Your task to perform on an android device: Turn off the flashlight Image 0: 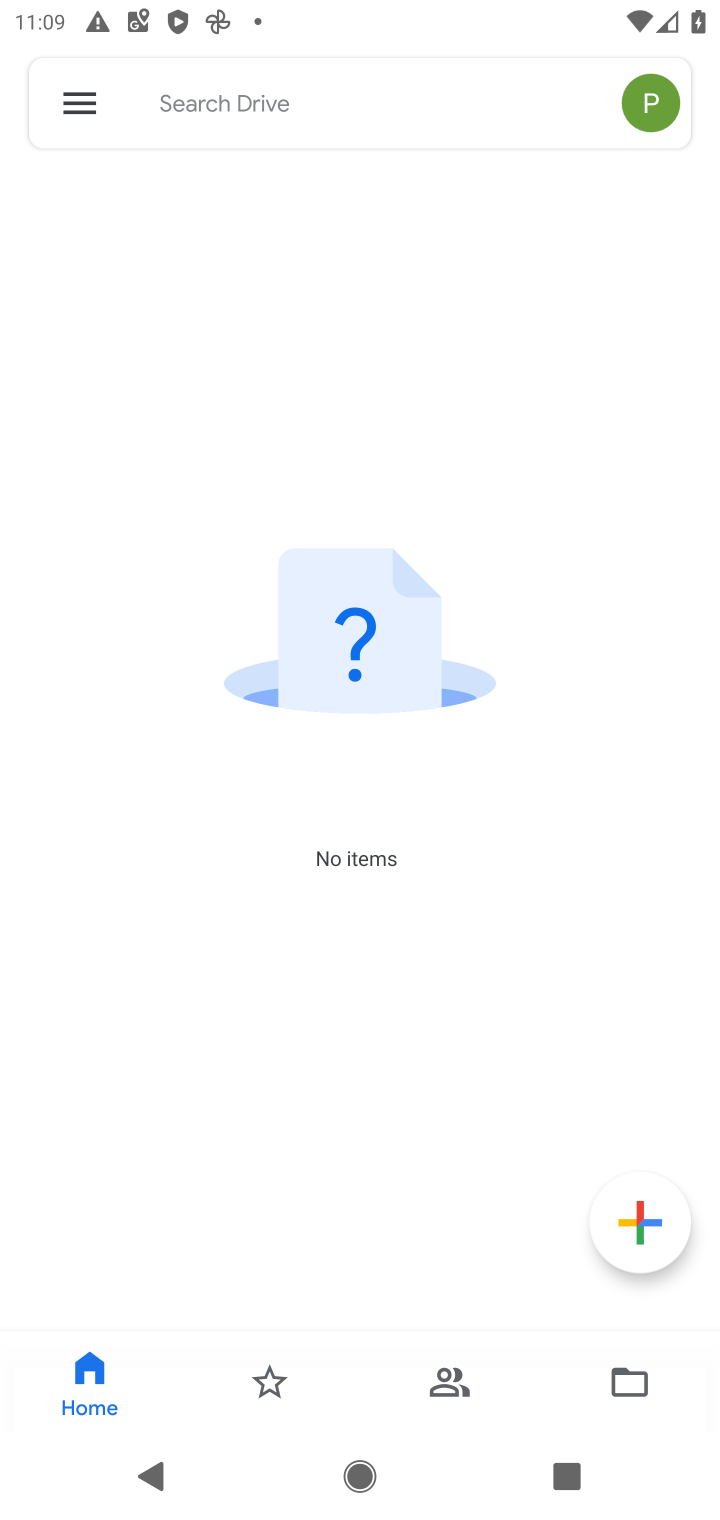
Step 0: press home button
Your task to perform on an android device: Turn off the flashlight Image 1: 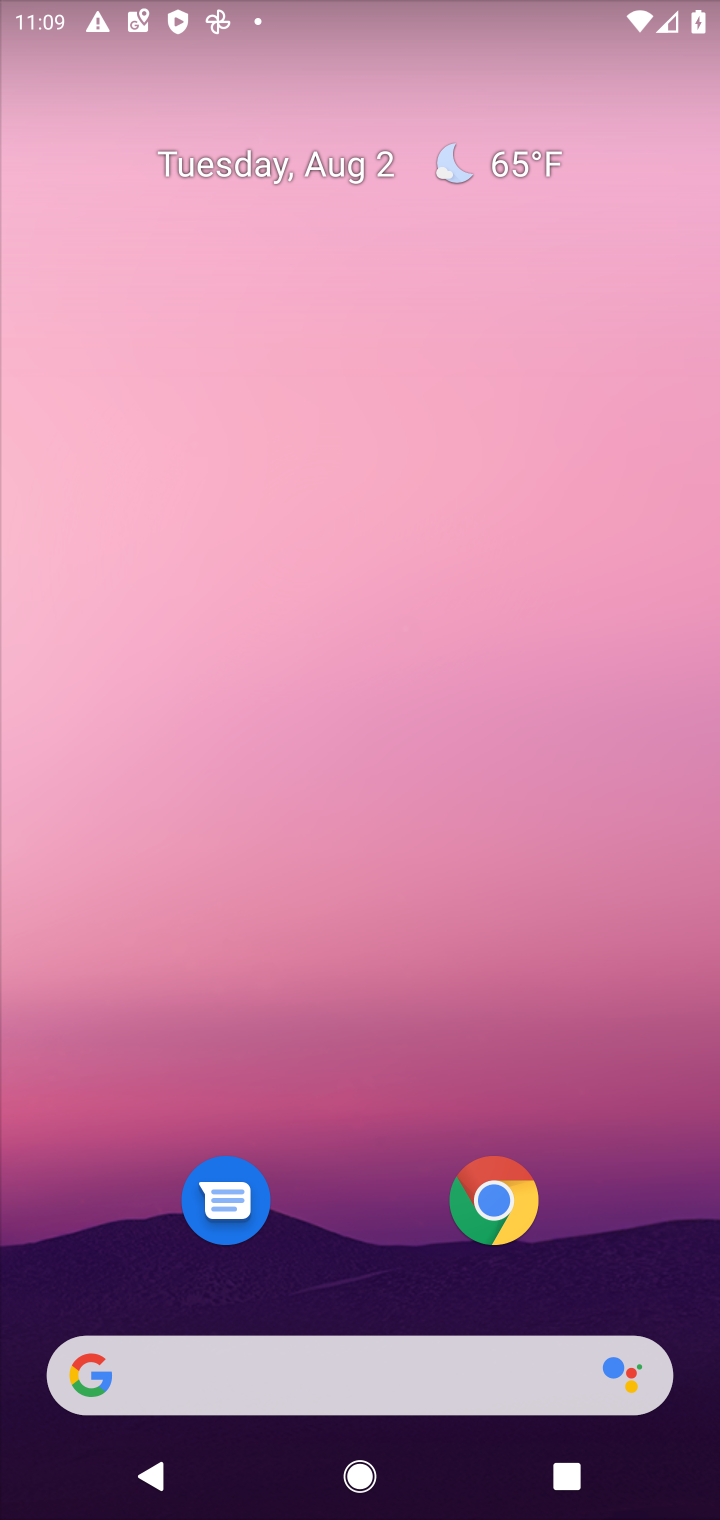
Step 1: drag from (421, 26) to (498, 945)
Your task to perform on an android device: Turn off the flashlight Image 2: 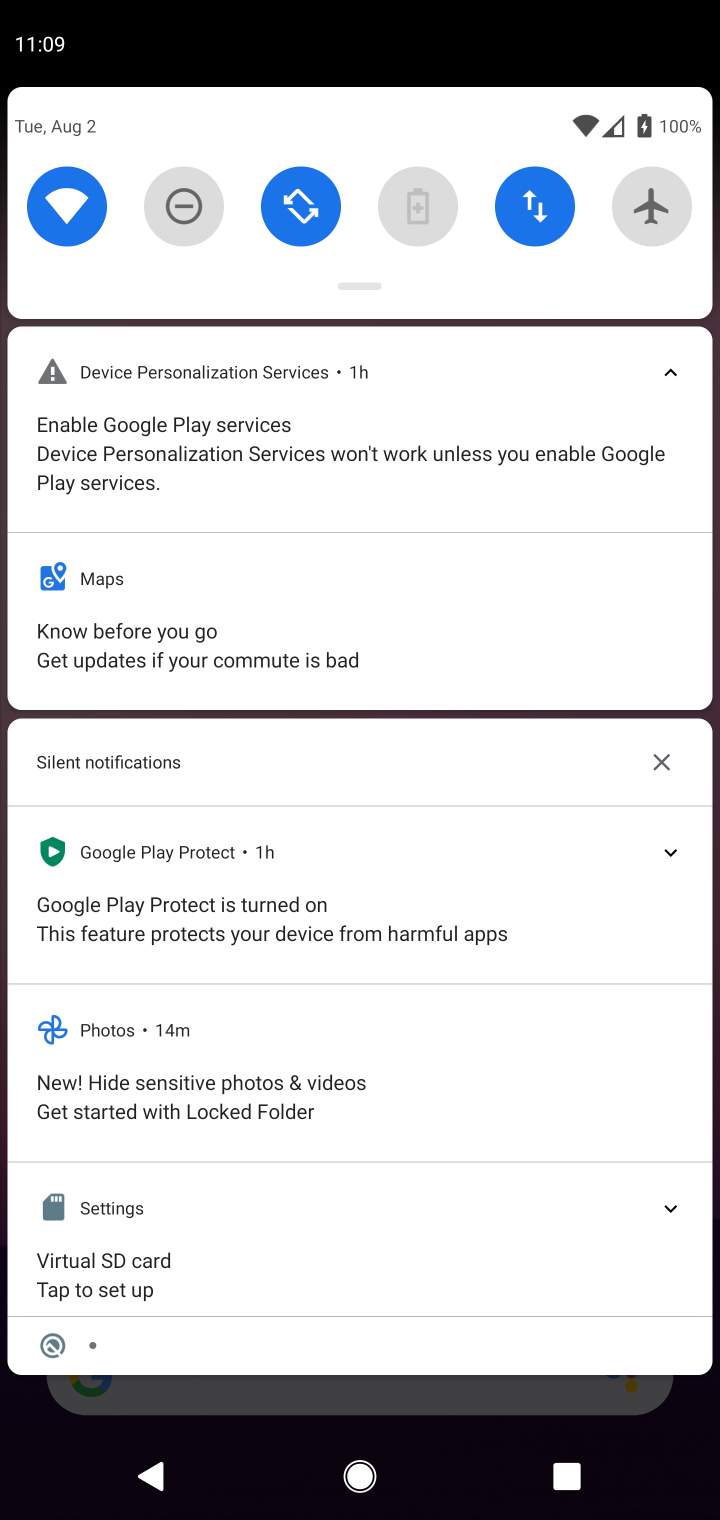
Step 2: drag from (369, 280) to (343, 796)
Your task to perform on an android device: Turn off the flashlight Image 3: 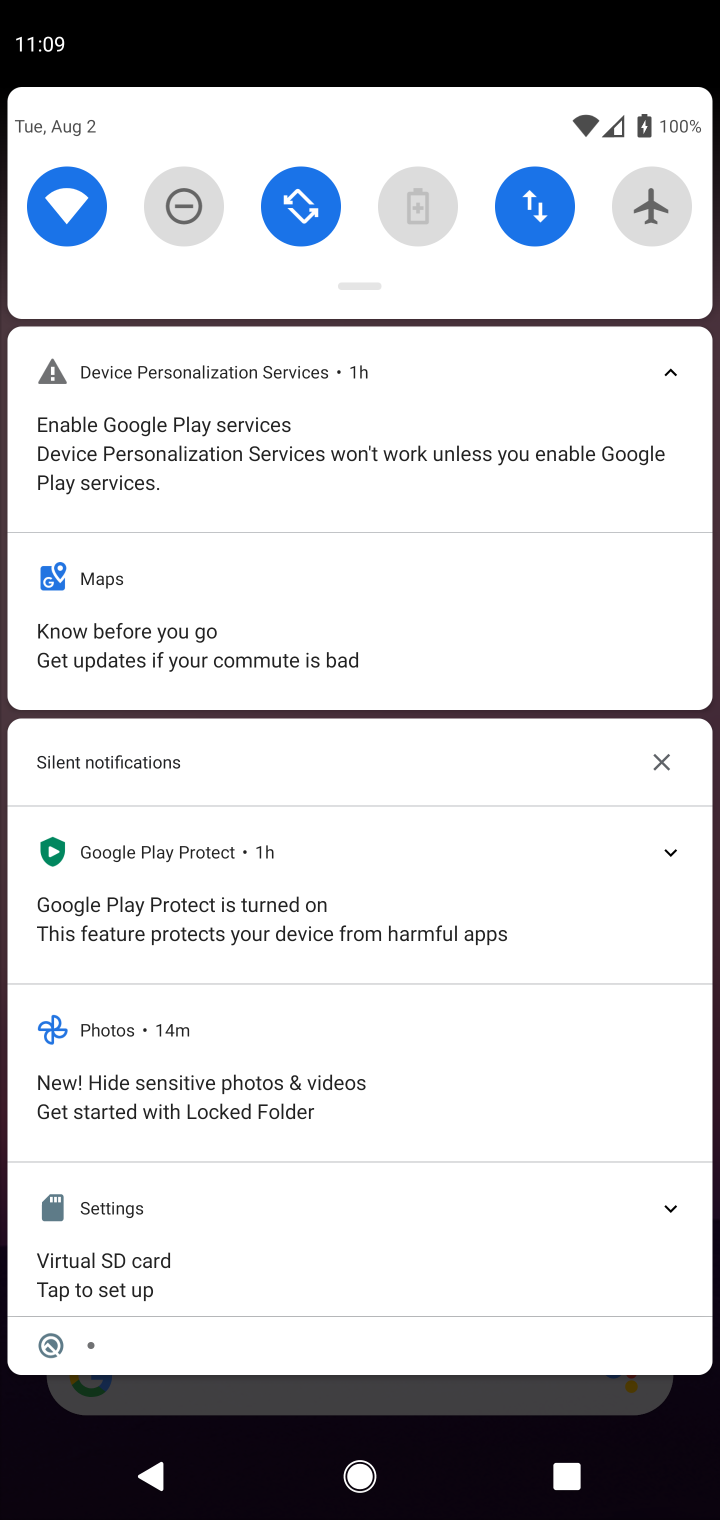
Step 3: drag from (370, 283) to (391, 1042)
Your task to perform on an android device: Turn off the flashlight Image 4: 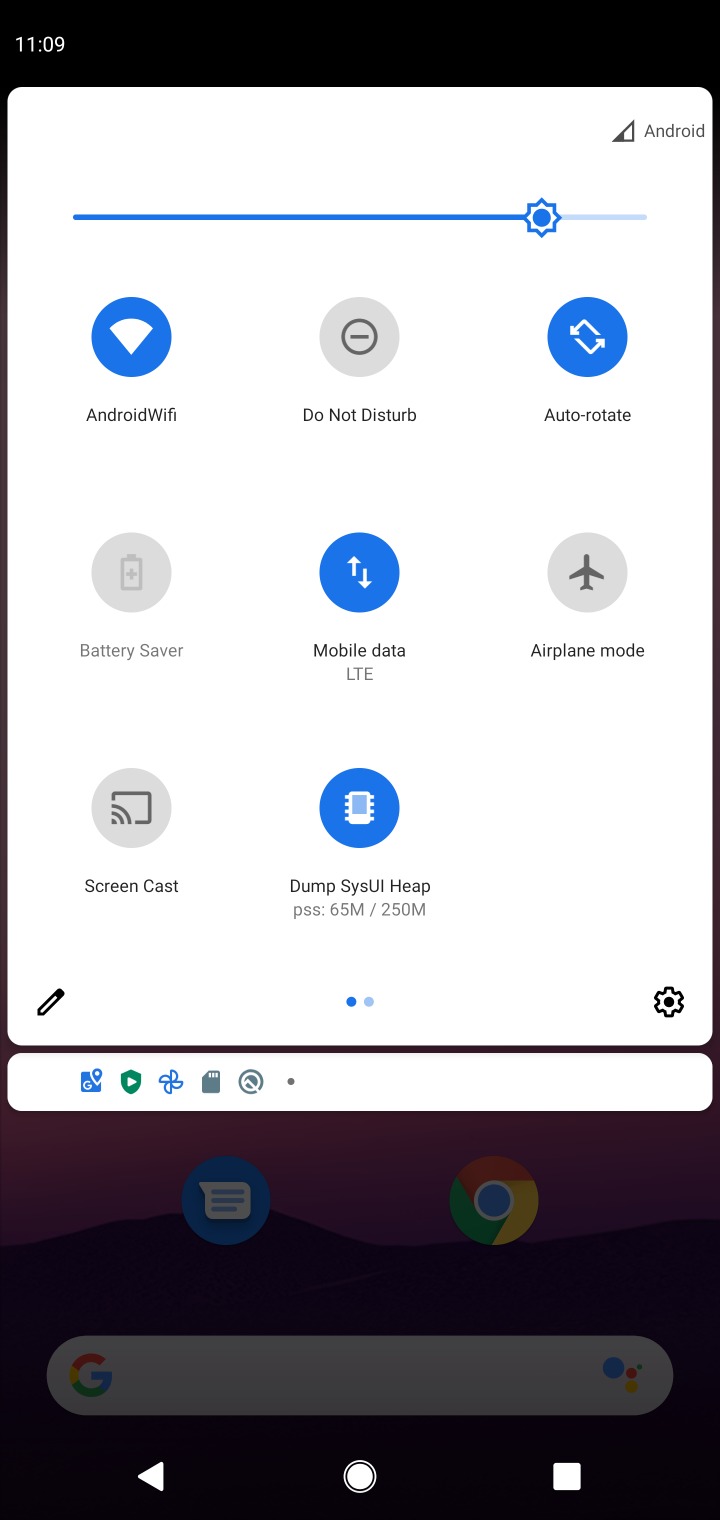
Step 4: click (38, 997)
Your task to perform on an android device: Turn off the flashlight Image 5: 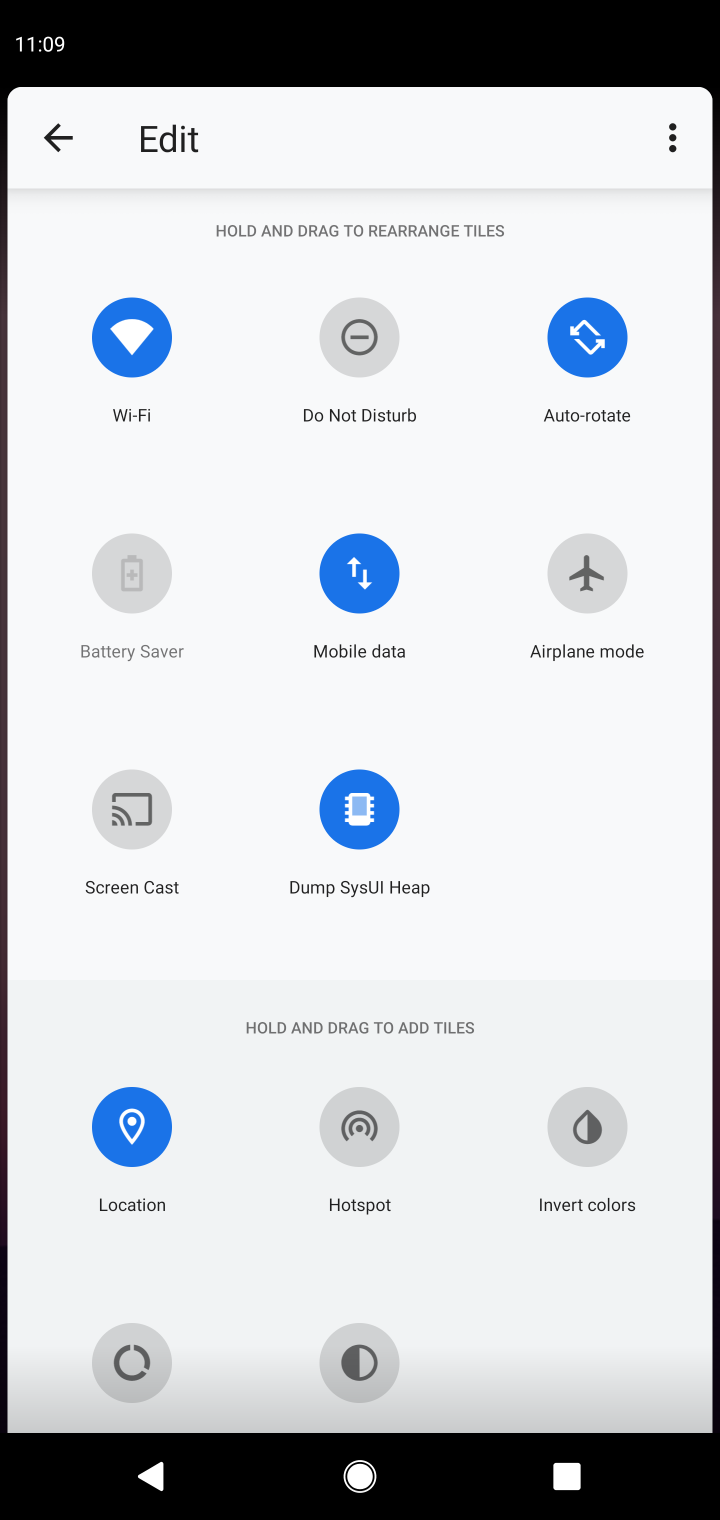
Step 5: task complete